Your task to perform on an android device: see tabs open on other devices in the chrome app Image 0: 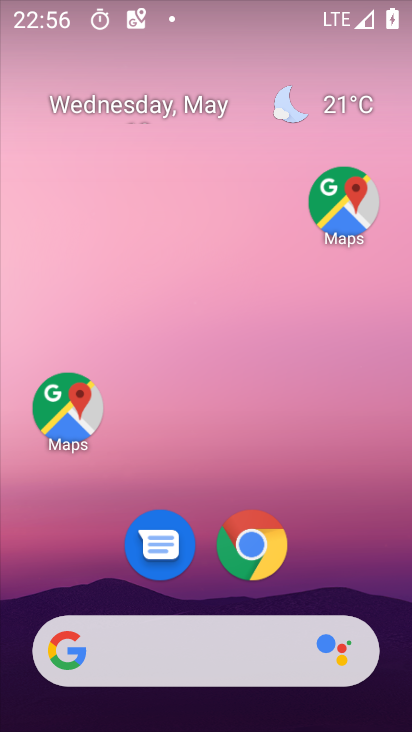
Step 0: click (251, 538)
Your task to perform on an android device: see tabs open on other devices in the chrome app Image 1: 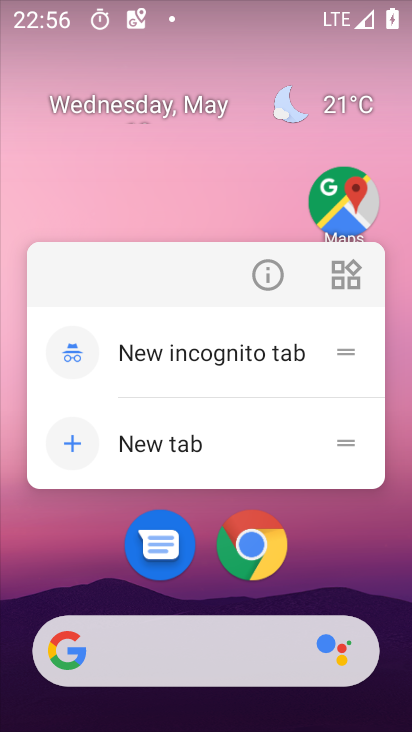
Step 1: click (251, 538)
Your task to perform on an android device: see tabs open on other devices in the chrome app Image 2: 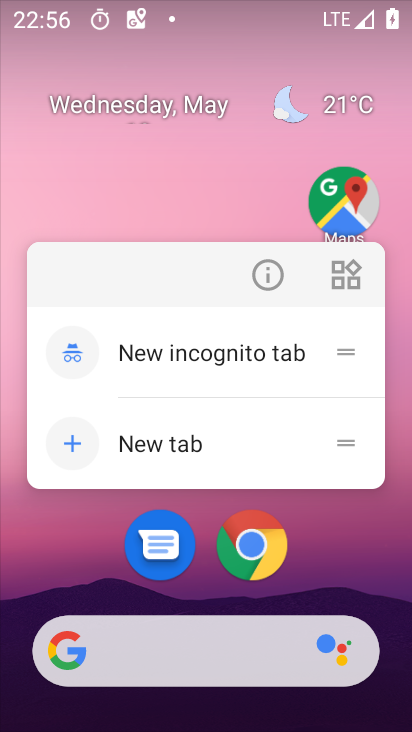
Step 2: click (249, 537)
Your task to perform on an android device: see tabs open on other devices in the chrome app Image 3: 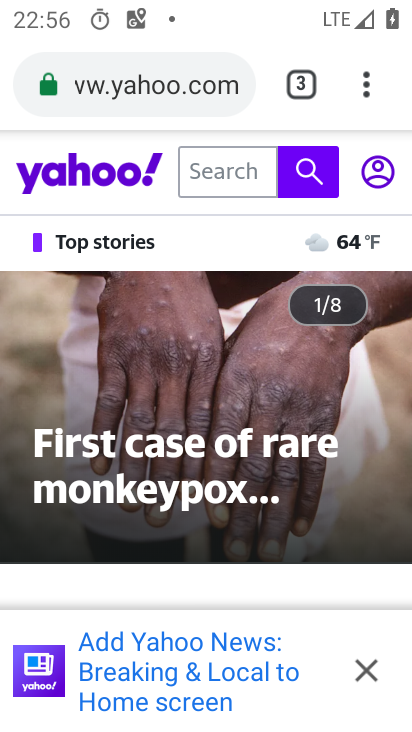
Step 3: click (363, 84)
Your task to perform on an android device: see tabs open on other devices in the chrome app Image 4: 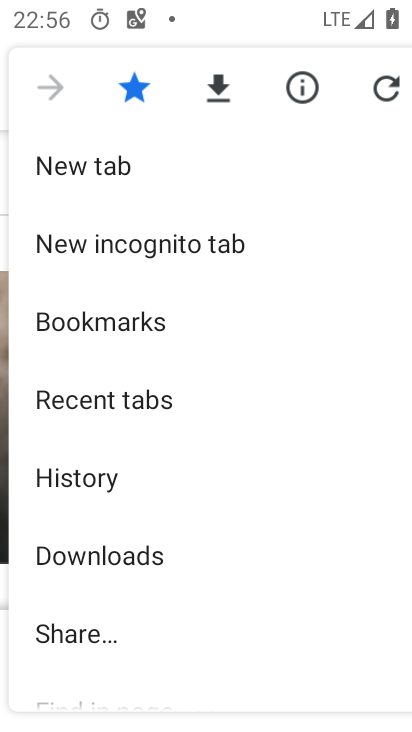
Step 4: click (169, 402)
Your task to perform on an android device: see tabs open on other devices in the chrome app Image 5: 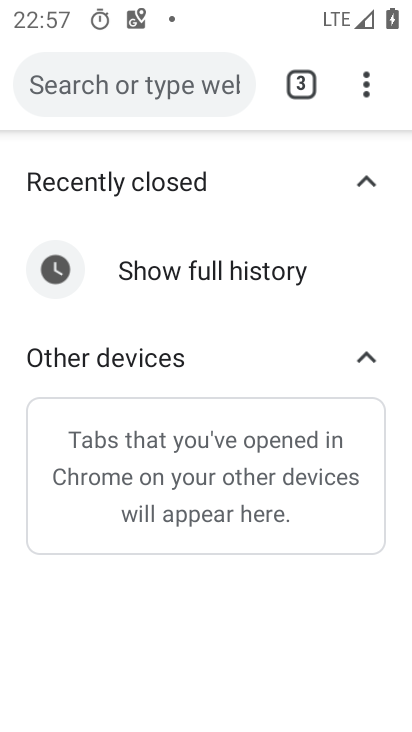
Step 5: task complete